Your task to perform on an android device: create a new album in the google photos Image 0: 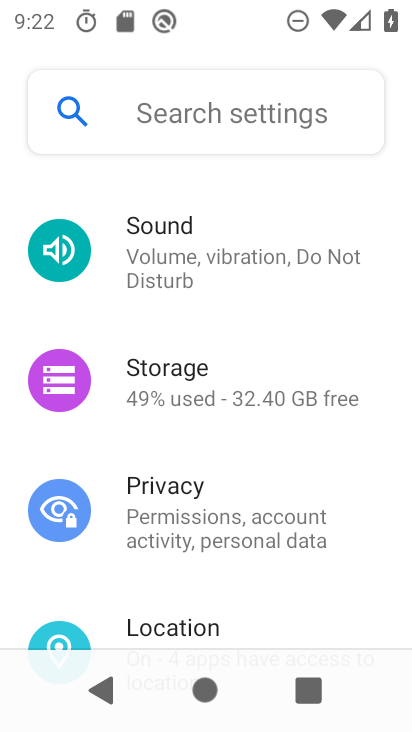
Step 0: press home button
Your task to perform on an android device: create a new album in the google photos Image 1: 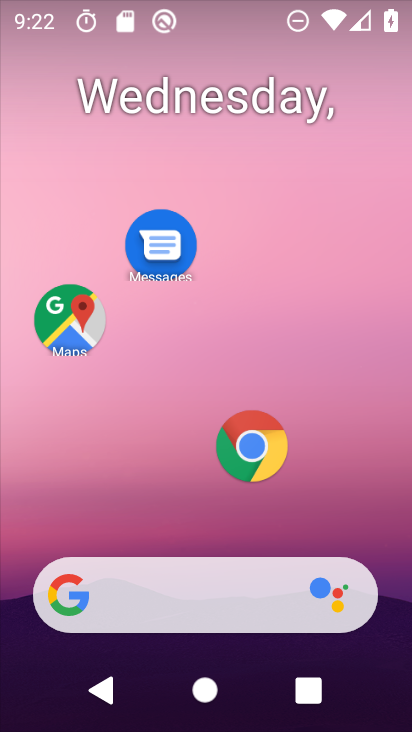
Step 1: drag from (202, 531) to (215, 60)
Your task to perform on an android device: create a new album in the google photos Image 2: 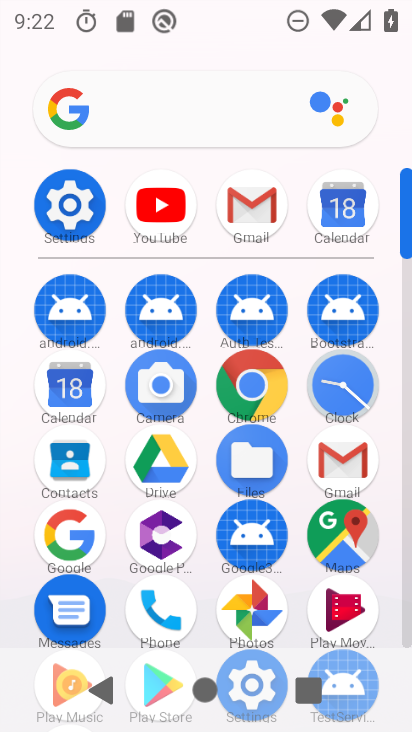
Step 2: click (250, 601)
Your task to perform on an android device: create a new album in the google photos Image 3: 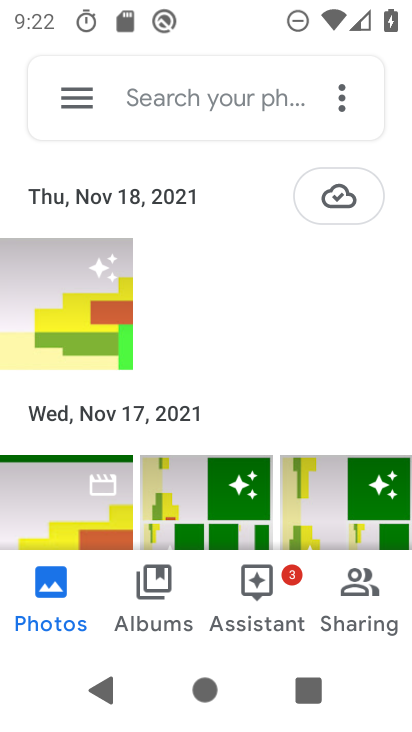
Step 3: click (167, 579)
Your task to perform on an android device: create a new album in the google photos Image 4: 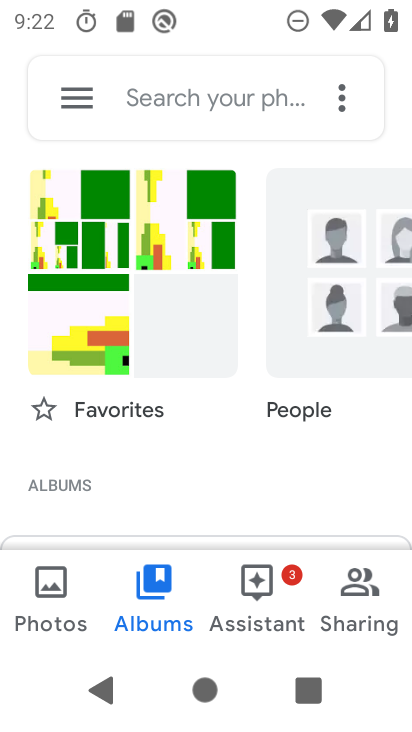
Step 4: click (328, 97)
Your task to perform on an android device: create a new album in the google photos Image 5: 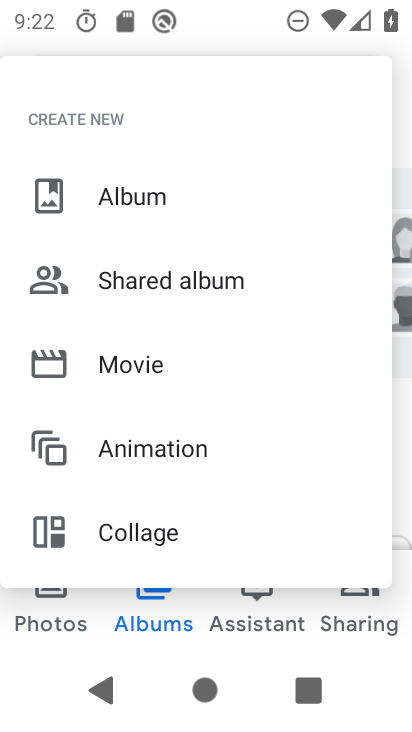
Step 5: click (162, 173)
Your task to perform on an android device: create a new album in the google photos Image 6: 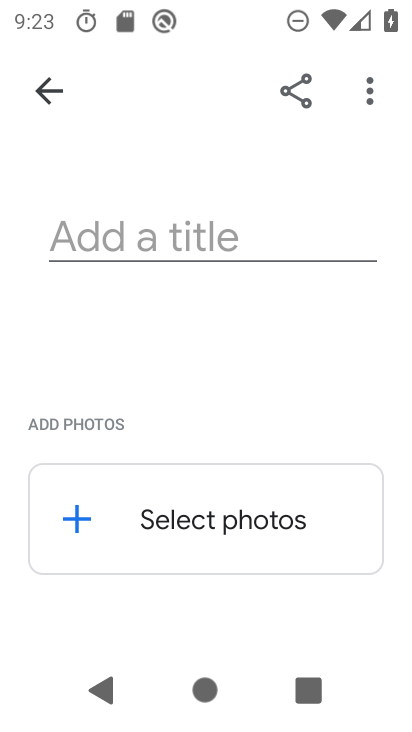
Step 6: click (85, 518)
Your task to perform on an android device: create a new album in the google photos Image 7: 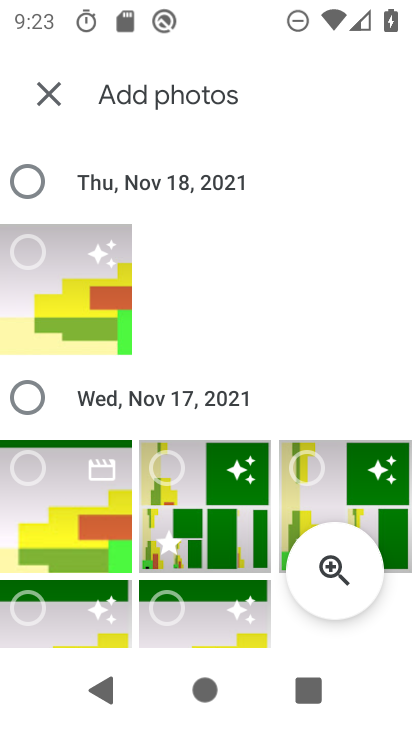
Step 7: click (50, 519)
Your task to perform on an android device: create a new album in the google photos Image 8: 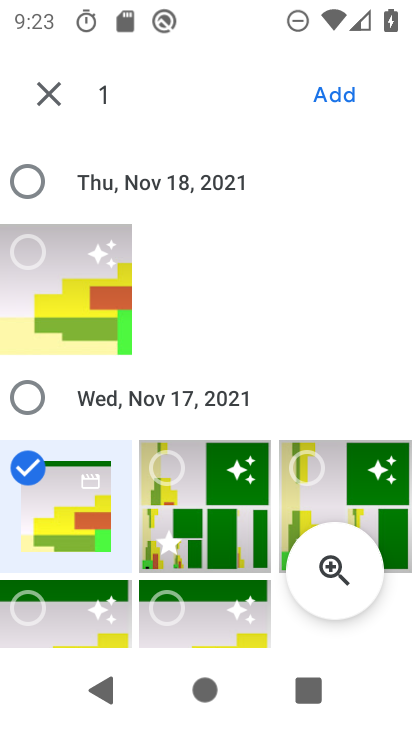
Step 8: click (210, 630)
Your task to perform on an android device: create a new album in the google photos Image 9: 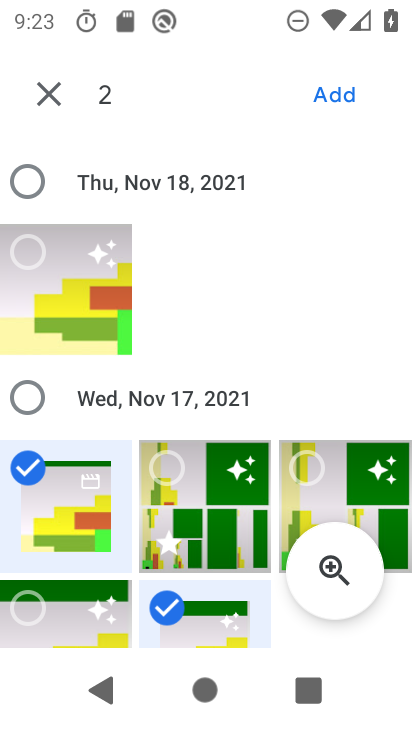
Step 9: click (70, 266)
Your task to perform on an android device: create a new album in the google photos Image 10: 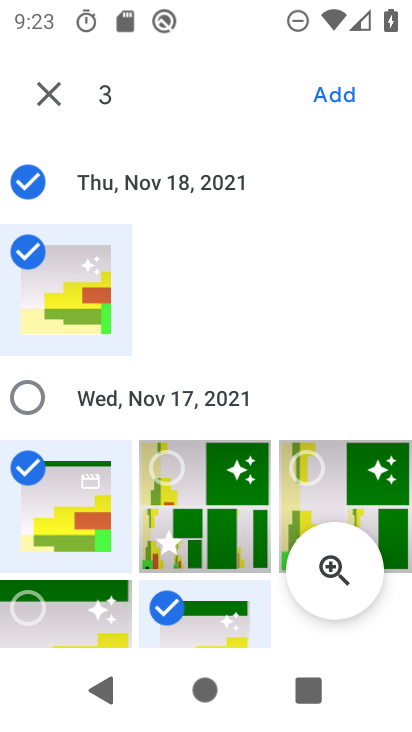
Step 10: click (347, 88)
Your task to perform on an android device: create a new album in the google photos Image 11: 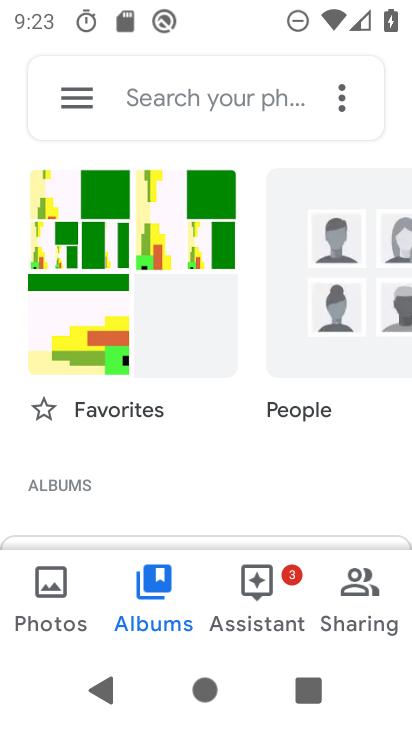
Step 11: click (341, 109)
Your task to perform on an android device: create a new album in the google photos Image 12: 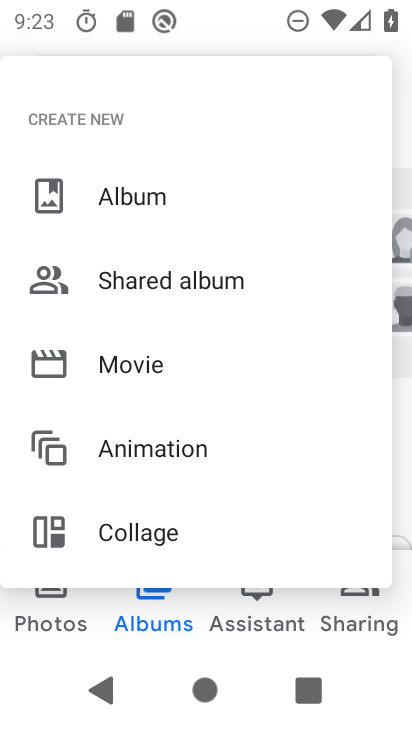
Step 12: click (146, 178)
Your task to perform on an android device: create a new album in the google photos Image 13: 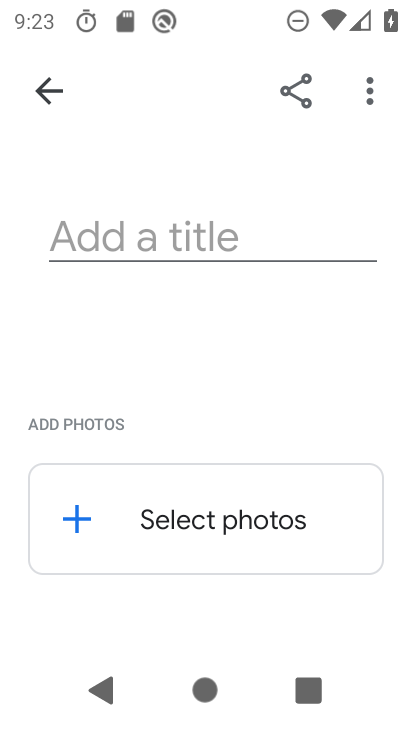
Step 13: click (113, 524)
Your task to perform on an android device: create a new album in the google photos Image 14: 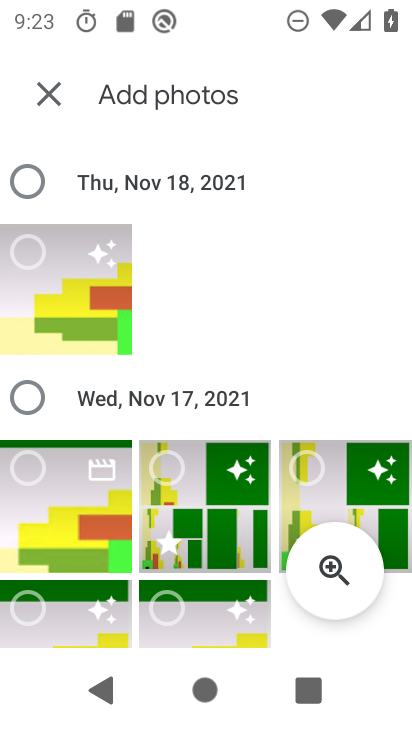
Step 14: click (156, 523)
Your task to perform on an android device: create a new album in the google photos Image 15: 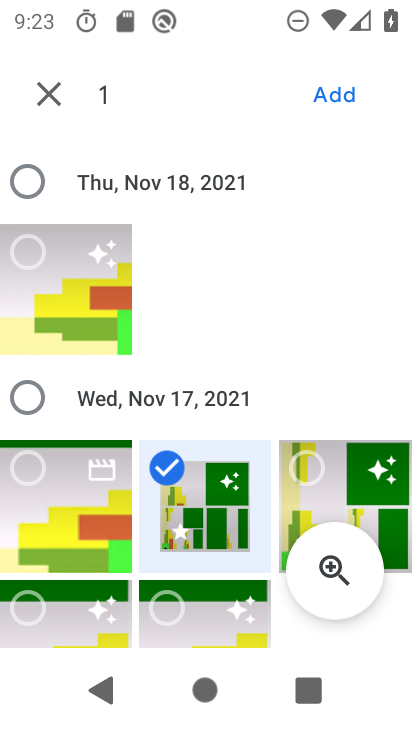
Step 15: click (22, 312)
Your task to perform on an android device: create a new album in the google photos Image 16: 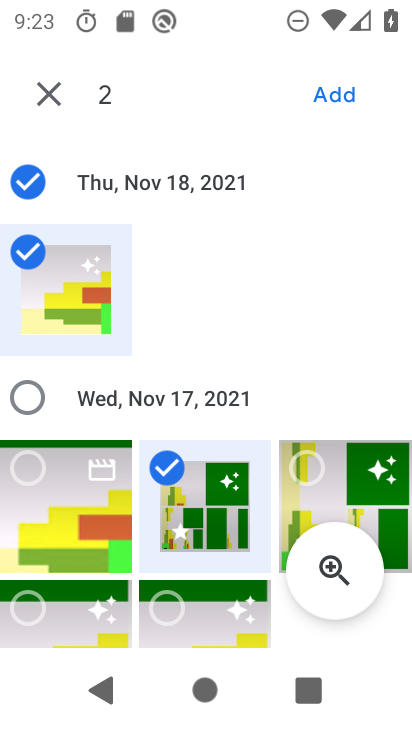
Step 16: click (325, 476)
Your task to perform on an android device: create a new album in the google photos Image 17: 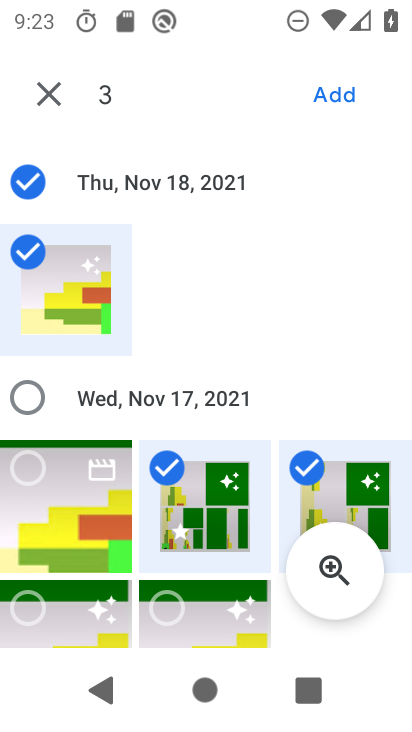
Step 17: click (333, 98)
Your task to perform on an android device: create a new album in the google photos Image 18: 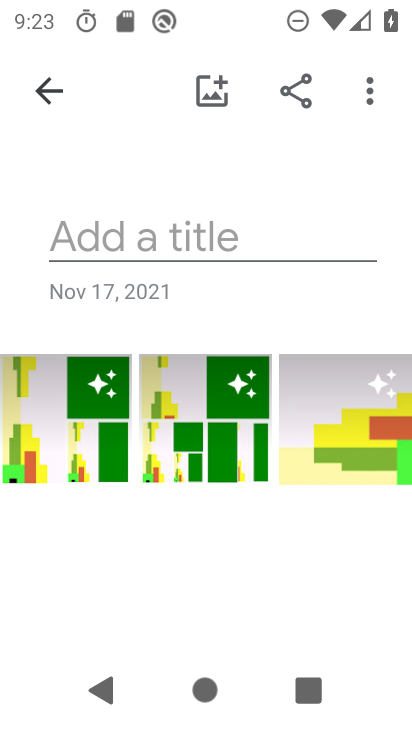
Step 18: click (146, 234)
Your task to perform on an android device: create a new album in the google photos Image 19: 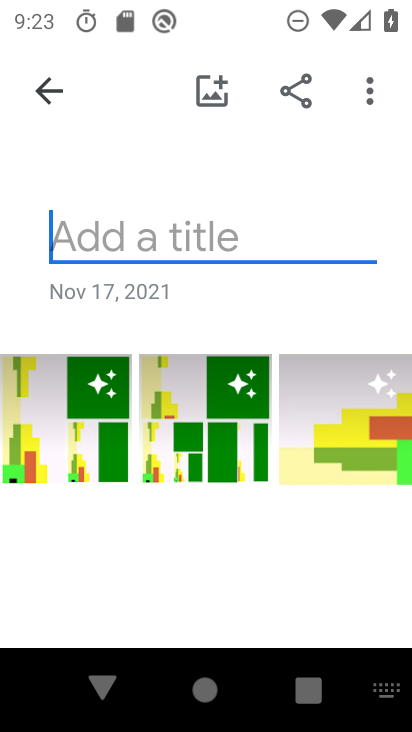
Step 19: type "ngcfcg"
Your task to perform on an android device: create a new album in the google photos Image 20: 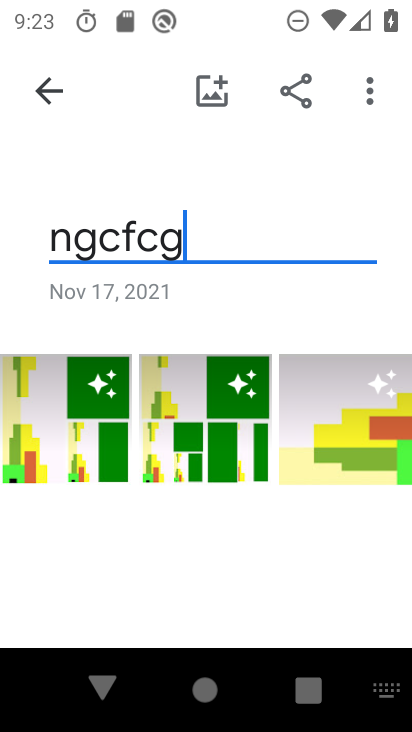
Step 20: type ""
Your task to perform on an android device: create a new album in the google photos Image 21: 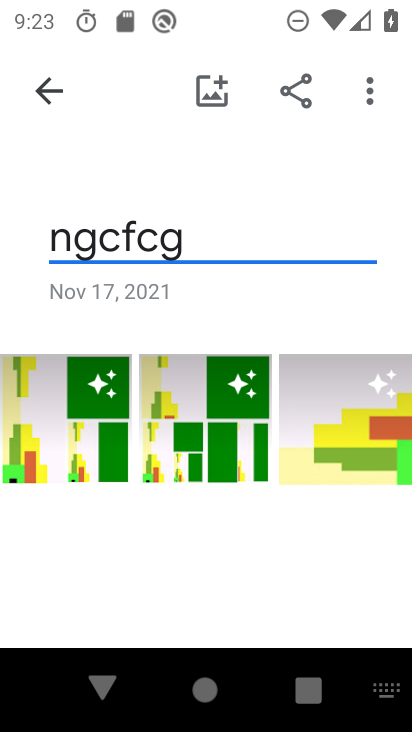
Step 21: click (288, 146)
Your task to perform on an android device: create a new album in the google photos Image 22: 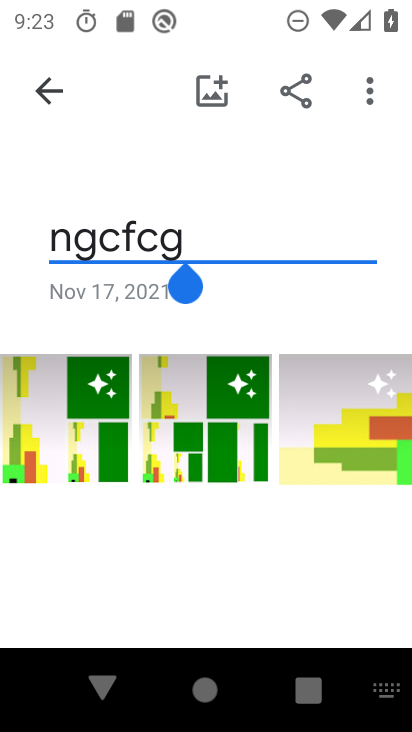
Step 22: click (250, 604)
Your task to perform on an android device: create a new album in the google photos Image 23: 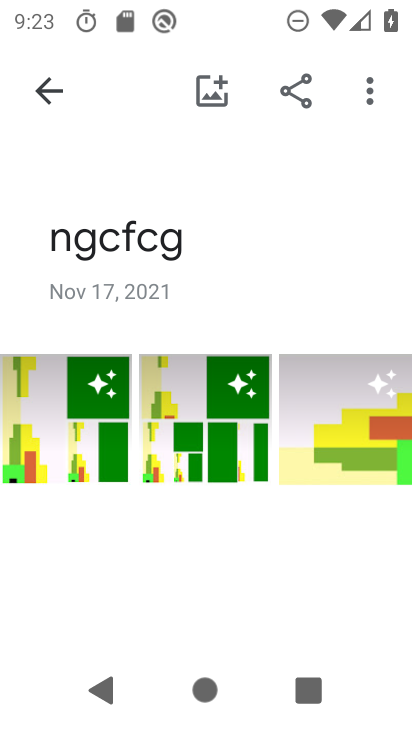
Step 23: task complete